Your task to perform on an android device: turn on notifications settings in the gmail app Image 0: 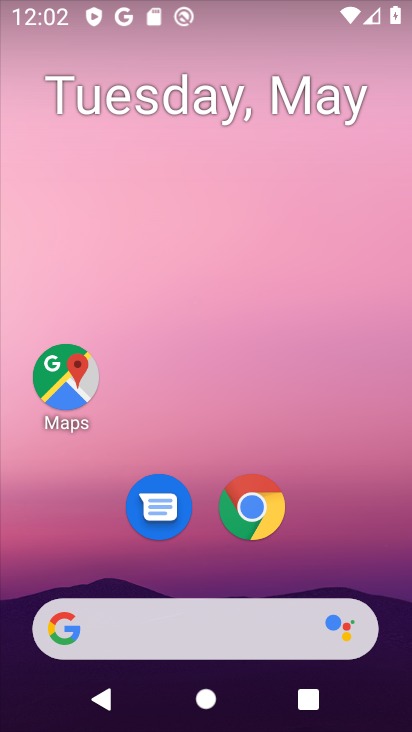
Step 0: drag from (327, 557) to (337, 124)
Your task to perform on an android device: turn on notifications settings in the gmail app Image 1: 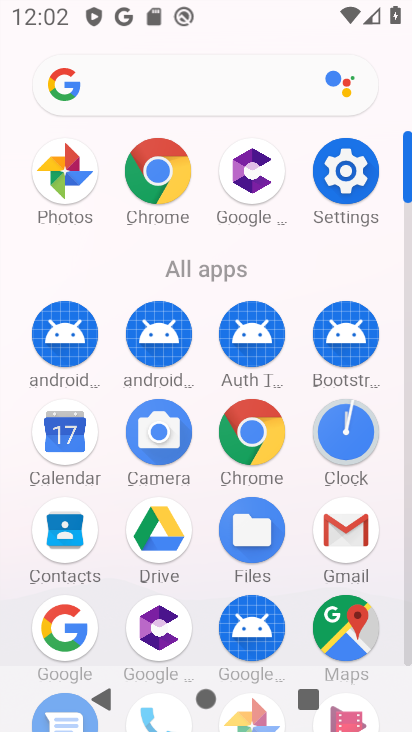
Step 1: click (356, 533)
Your task to perform on an android device: turn on notifications settings in the gmail app Image 2: 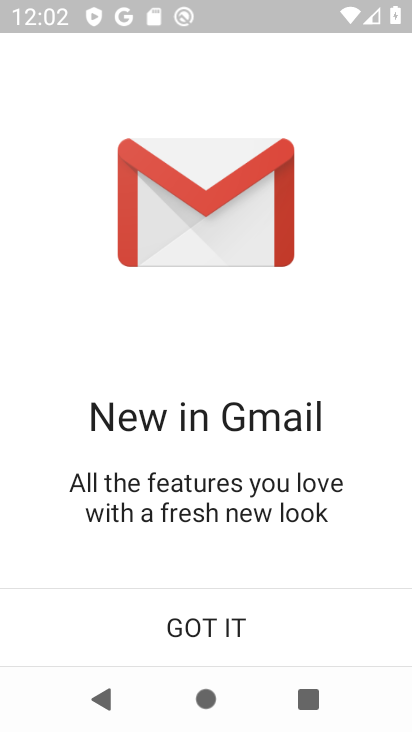
Step 2: click (240, 635)
Your task to perform on an android device: turn on notifications settings in the gmail app Image 3: 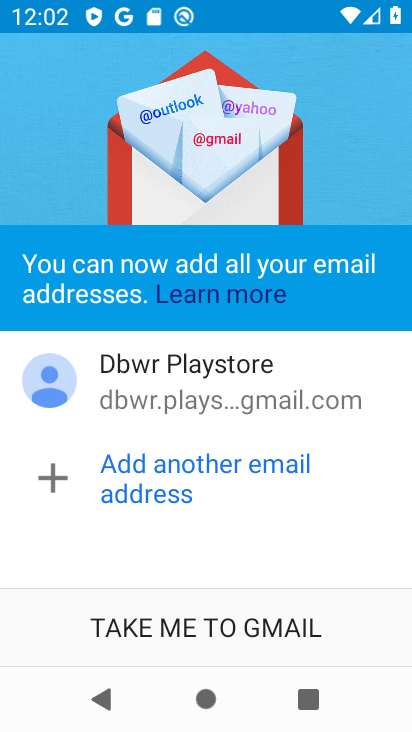
Step 3: click (240, 633)
Your task to perform on an android device: turn on notifications settings in the gmail app Image 4: 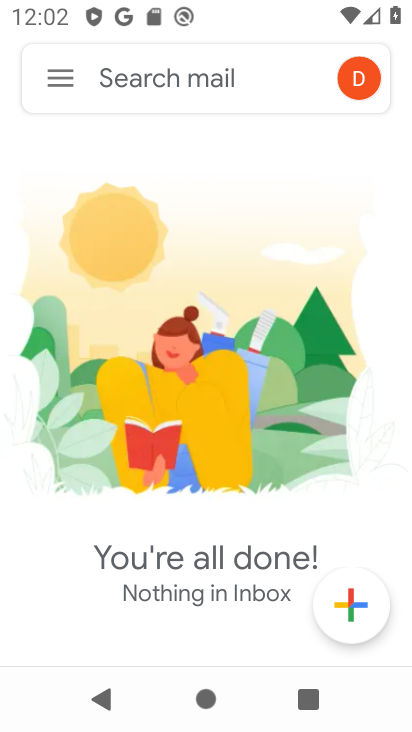
Step 4: click (62, 85)
Your task to perform on an android device: turn on notifications settings in the gmail app Image 5: 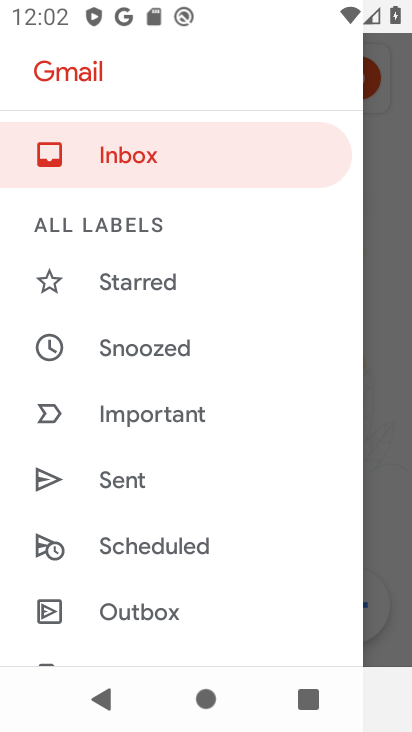
Step 5: drag from (254, 536) to (280, 362)
Your task to perform on an android device: turn on notifications settings in the gmail app Image 6: 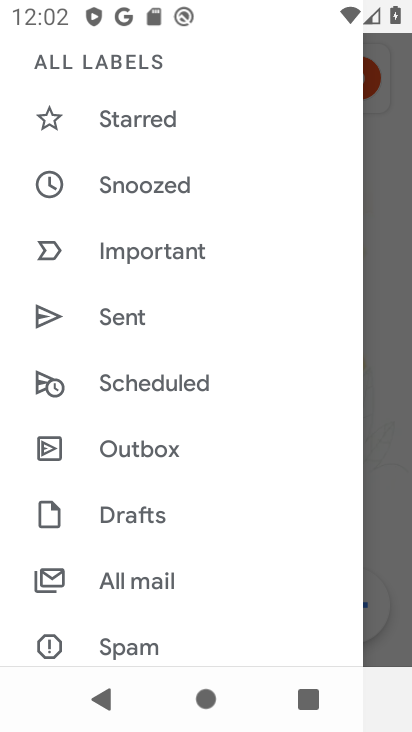
Step 6: drag from (261, 578) to (279, 402)
Your task to perform on an android device: turn on notifications settings in the gmail app Image 7: 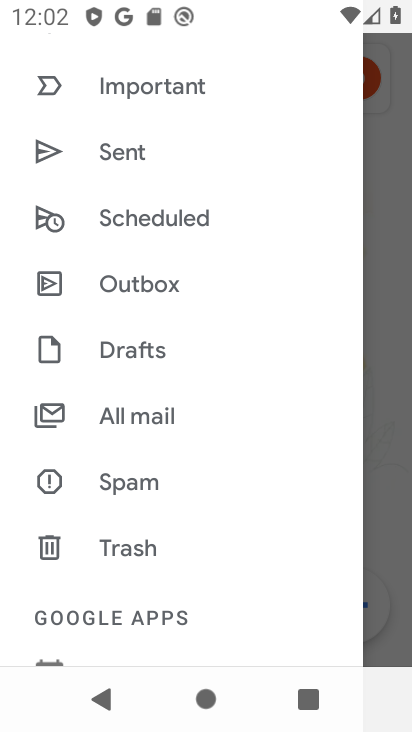
Step 7: drag from (261, 589) to (262, 445)
Your task to perform on an android device: turn on notifications settings in the gmail app Image 8: 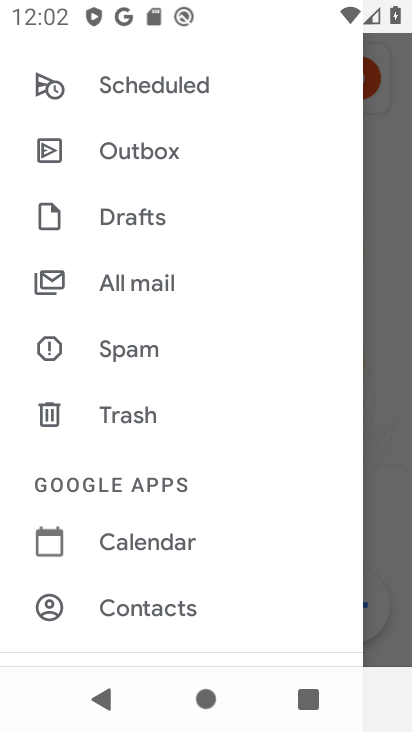
Step 8: drag from (258, 613) to (259, 448)
Your task to perform on an android device: turn on notifications settings in the gmail app Image 9: 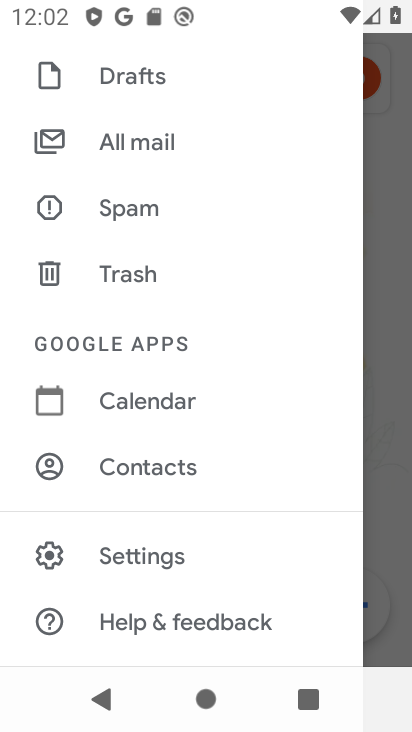
Step 9: drag from (268, 641) to (283, 464)
Your task to perform on an android device: turn on notifications settings in the gmail app Image 10: 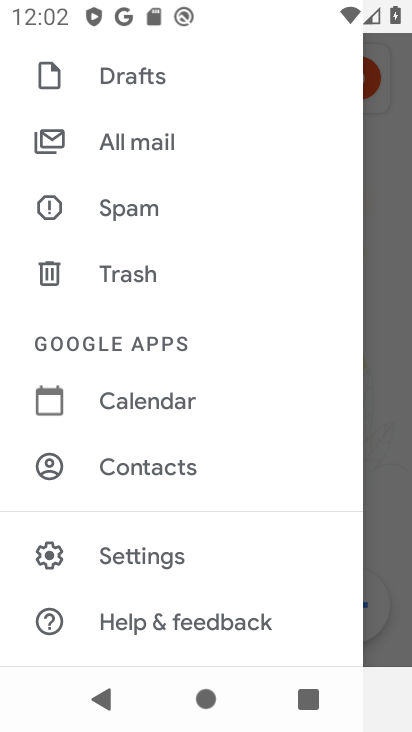
Step 10: click (170, 558)
Your task to perform on an android device: turn on notifications settings in the gmail app Image 11: 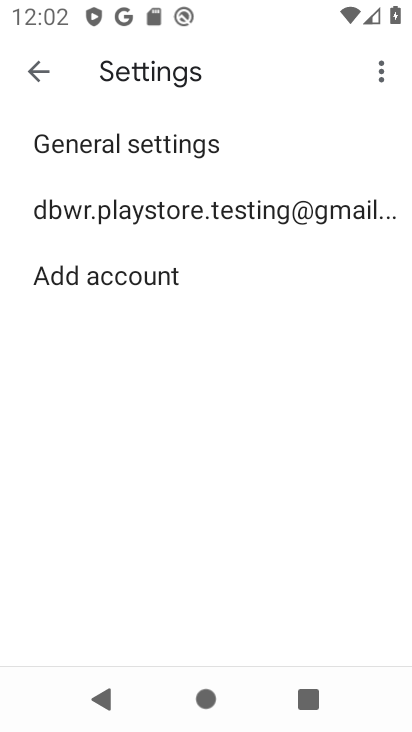
Step 11: click (270, 213)
Your task to perform on an android device: turn on notifications settings in the gmail app Image 12: 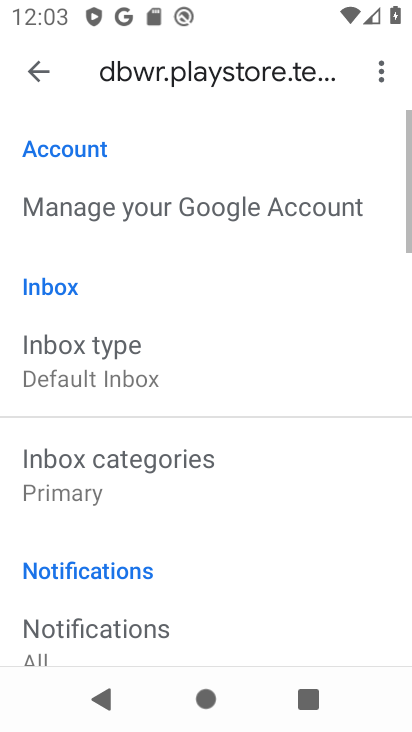
Step 12: drag from (271, 553) to (295, 371)
Your task to perform on an android device: turn on notifications settings in the gmail app Image 13: 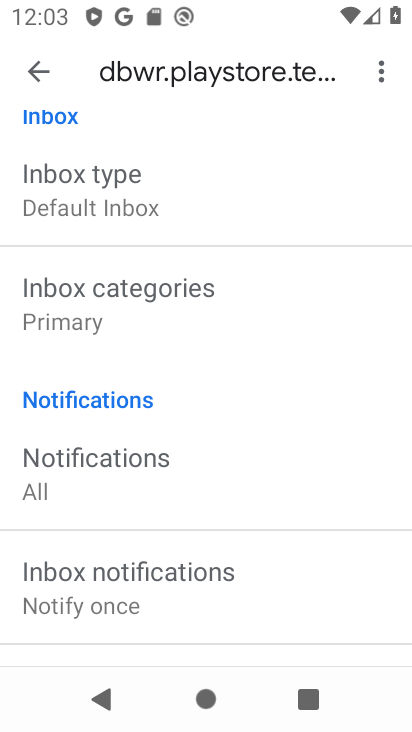
Step 13: drag from (274, 581) to (291, 407)
Your task to perform on an android device: turn on notifications settings in the gmail app Image 14: 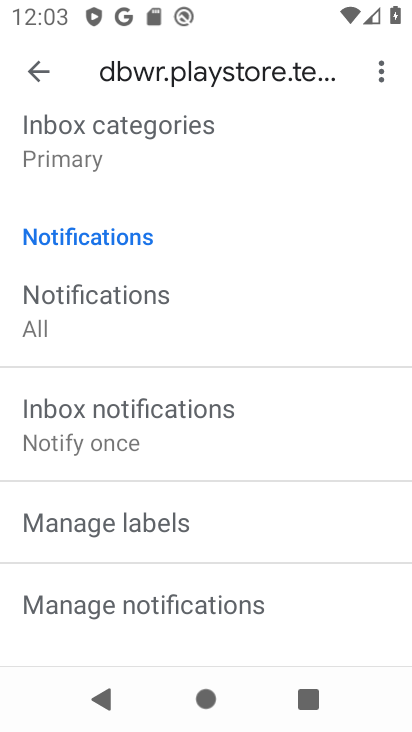
Step 14: drag from (292, 288) to (299, 466)
Your task to perform on an android device: turn on notifications settings in the gmail app Image 15: 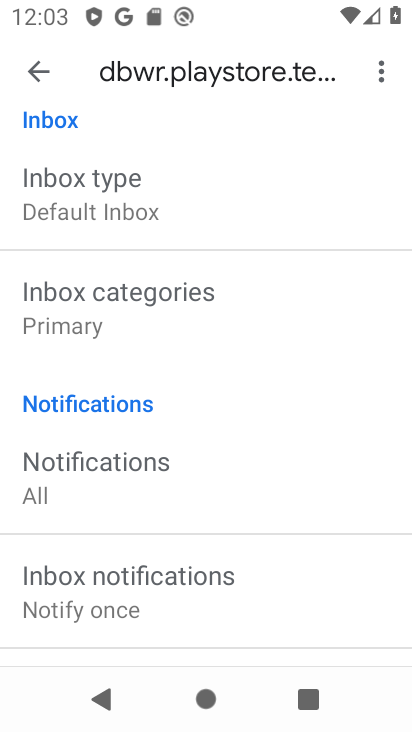
Step 15: drag from (264, 298) to (269, 484)
Your task to perform on an android device: turn on notifications settings in the gmail app Image 16: 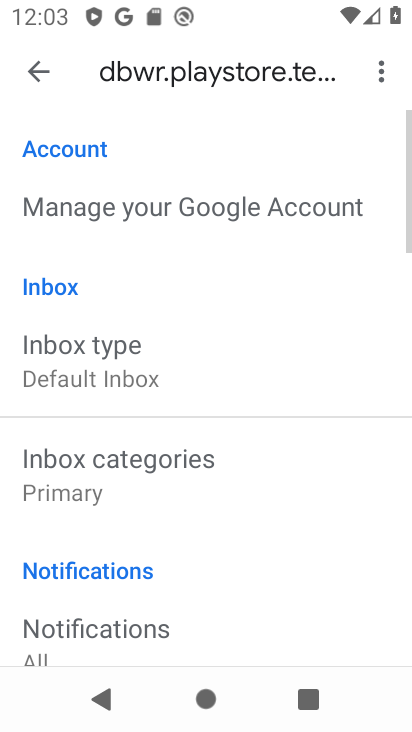
Step 16: drag from (266, 527) to (268, 337)
Your task to perform on an android device: turn on notifications settings in the gmail app Image 17: 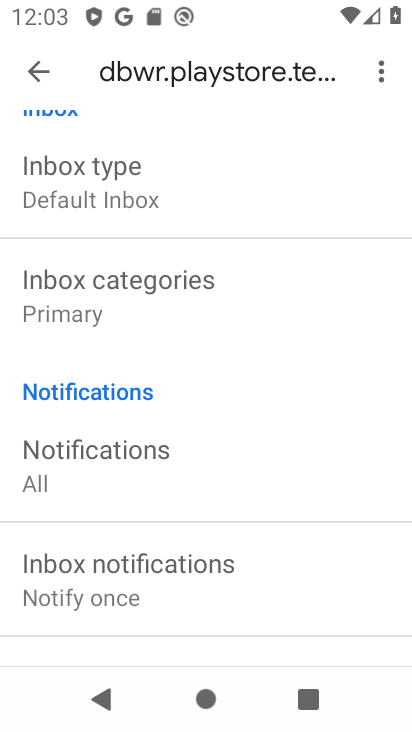
Step 17: drag from (270, 531) to (278, 354)
Your task to perform on an android device: turn on notifications settings in the gmail app Image 18: 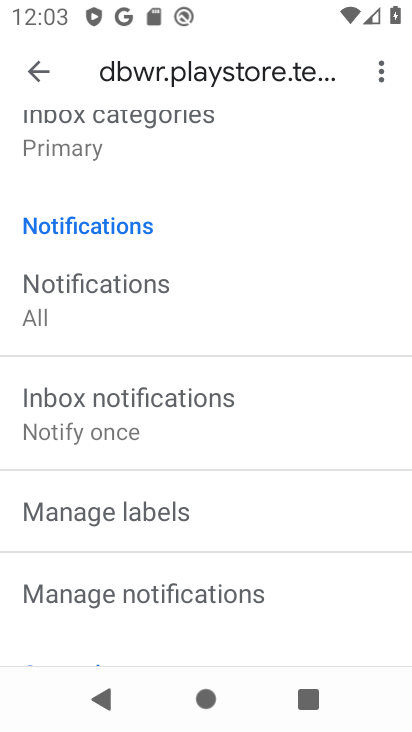
Step 18: click (228, 606)
Your task to perform on an android device: turn on notifications settings in the gmail app Image 19: 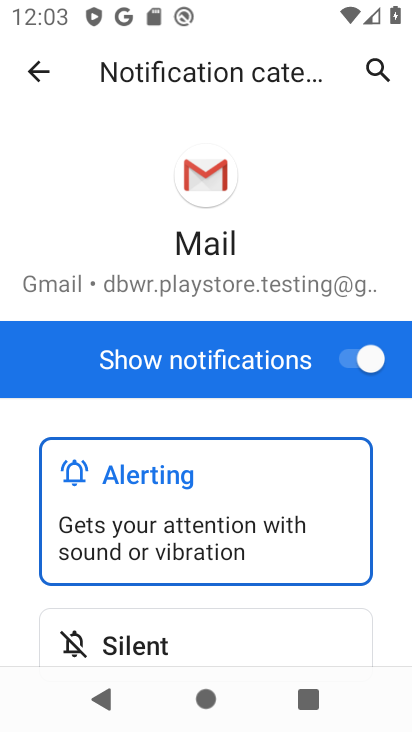
Step 19: task complete